Your task to perform on an android device: Open my contact list Image 0: 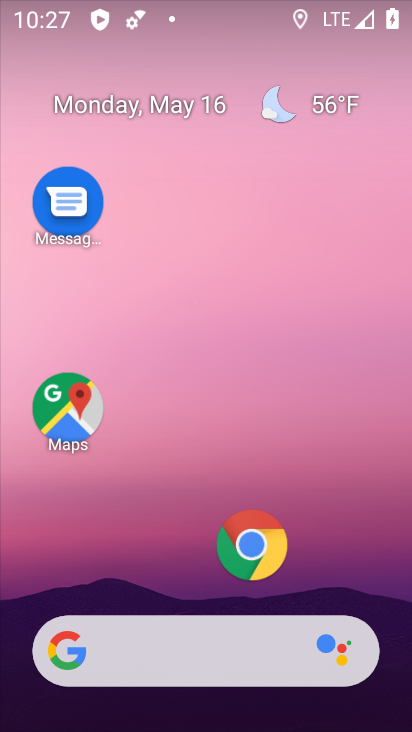
Step 0: drag from (198, 611) to (13, 434)
Your task to perform on an android device: Open my contact list Image 1: 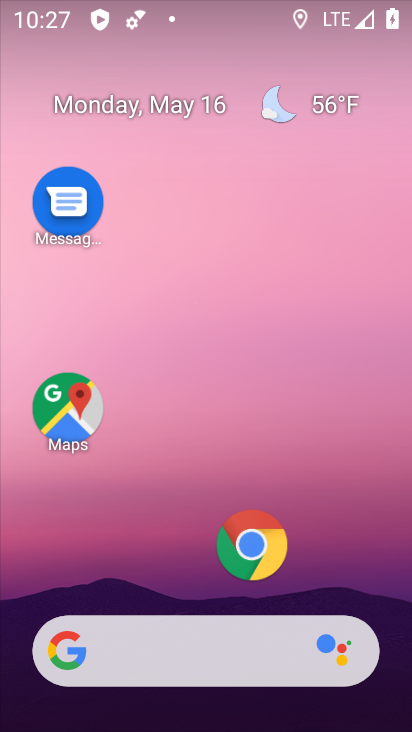
Step 1: click (61, 605)
Your task to perform on an android device: Open my contact list Image 2: 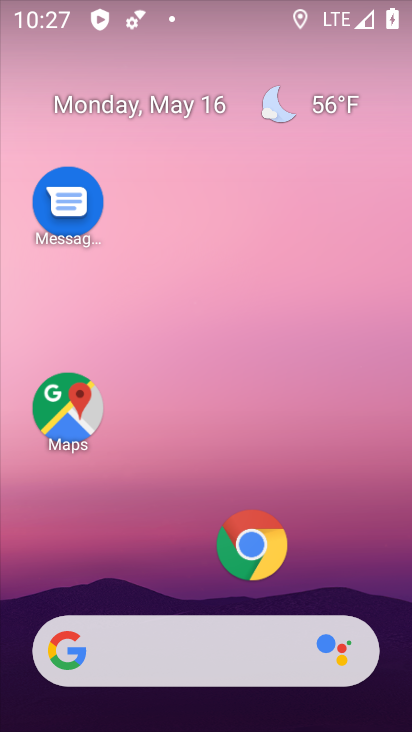
Step 2: drag from (64, 603) to (38, 31)
Your task to perform on an android device: Open my contact list Image 3: 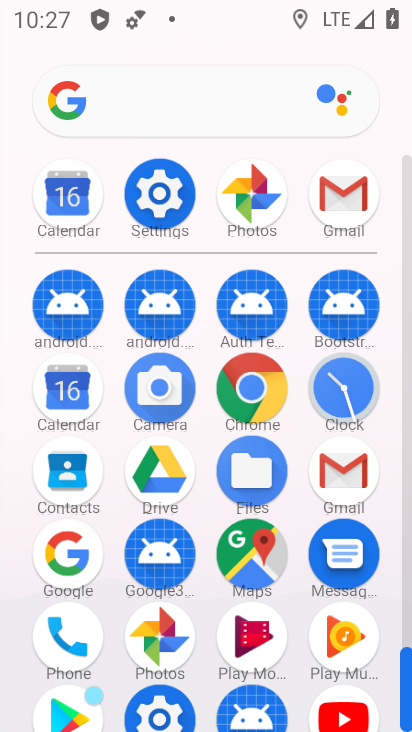
Step 3: click (66, 644)
Your task to perform on an android device: Open my contact list Image 4: 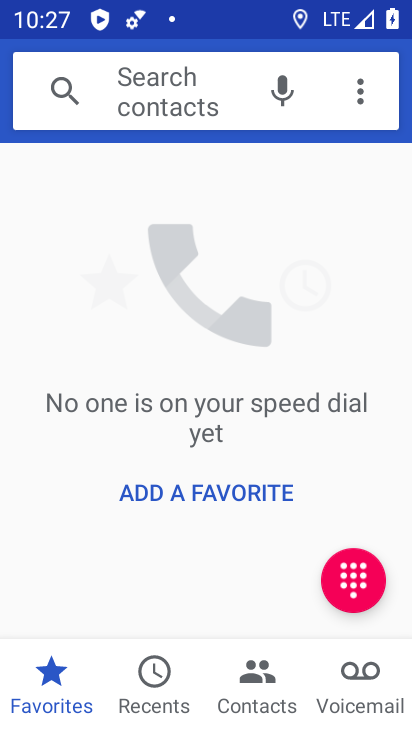
Step 4: click (260, 700)
Your task to perform on an android device: Open my contact list Image 5: 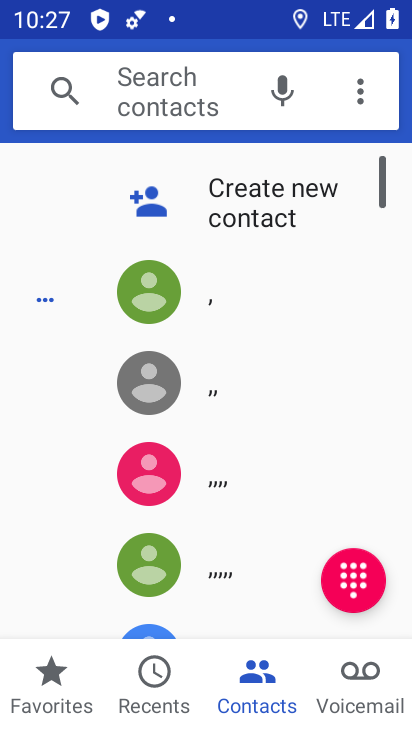
Step 5: task complete